Your task to perform on an android device: Go to calendar. Show me events next week Image 0: 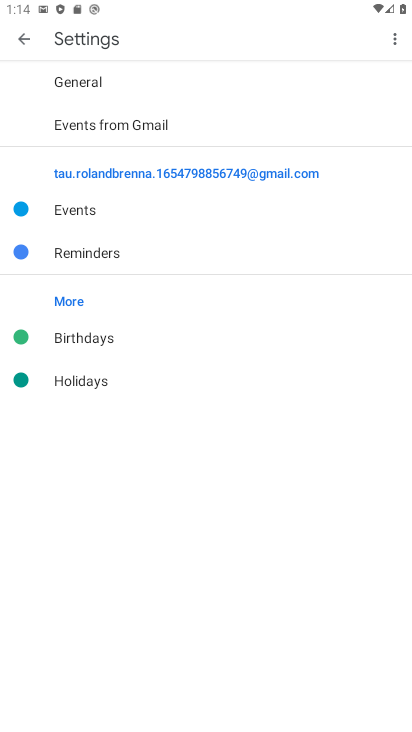
Step 0: press home button
Your task to perform on an android device: Go to calendar. Show me events next week Image 1: 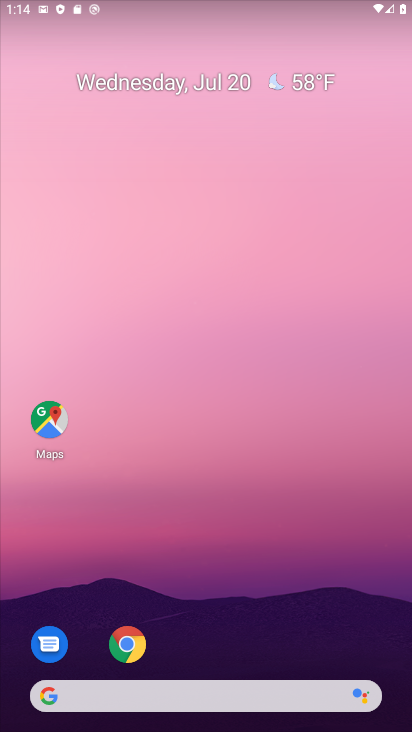
Step 1: drag from (224, 633) to (307, 83)
Your task to perform on an android device: Go to calendar. Show me events next week Image 2: 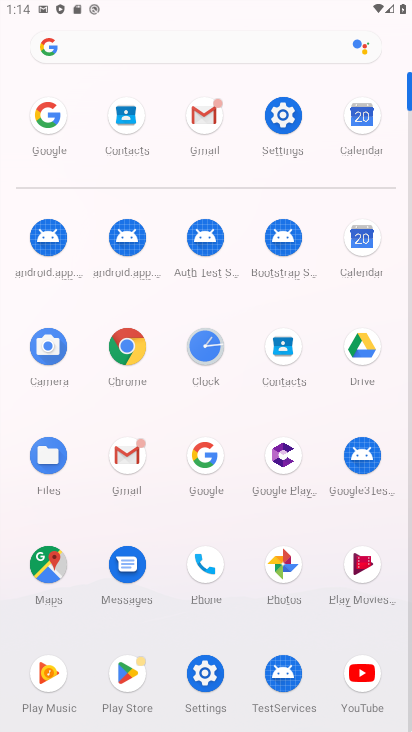
Step 2: click (362, 233)
Your task to perform on an android device: Go to calendar. Show me events next week Image 3: 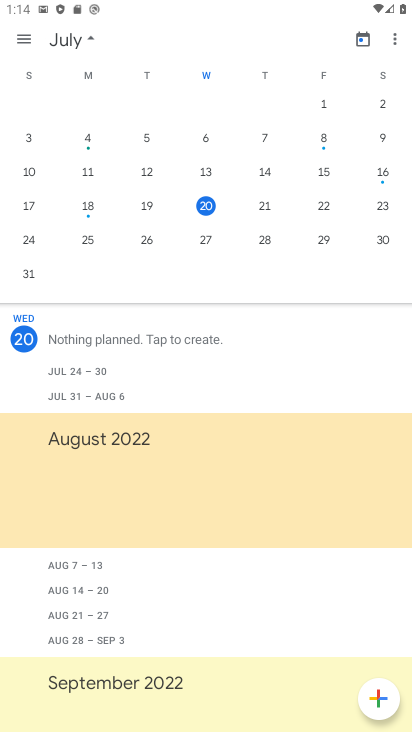
Step 3: drag from (321, 206) to (330, 57)
Your task to perform on an android device: Go to calendar. Show me events next week Image 4: 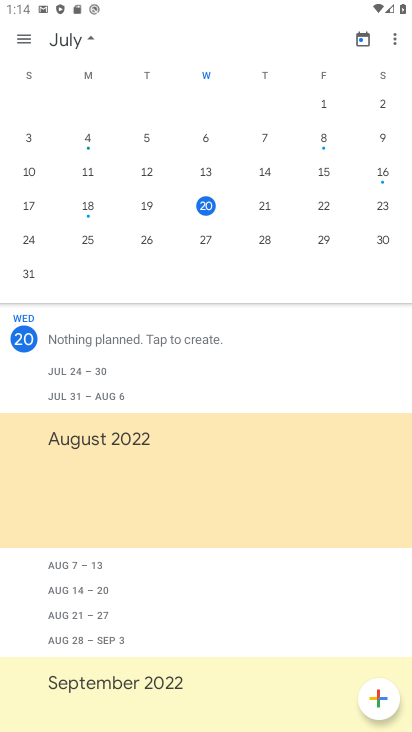
Step 4: click (205, 238)
Your task to perform on an android device: Go to calendar. Show me events next week Image 5: 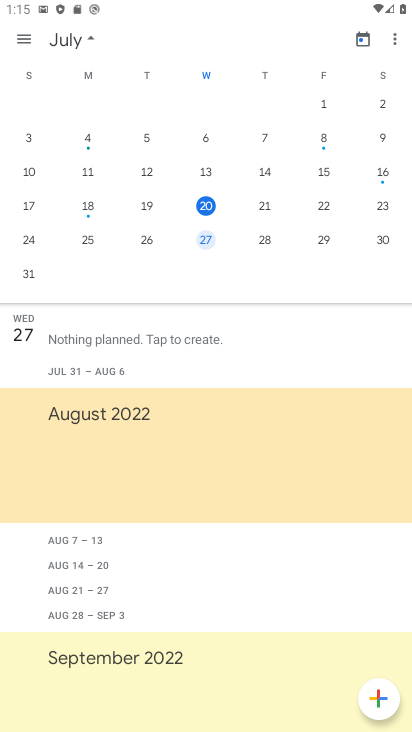
Step 5: task complete